Your task to perform on an android device: find which apps use the phone's location Image 0: 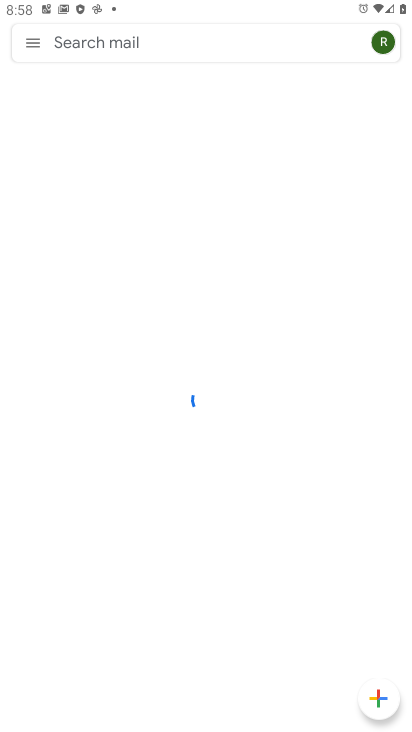
Step 0: press home button
Your task to perform on an android device: find which apps use the phone's location Image 1: 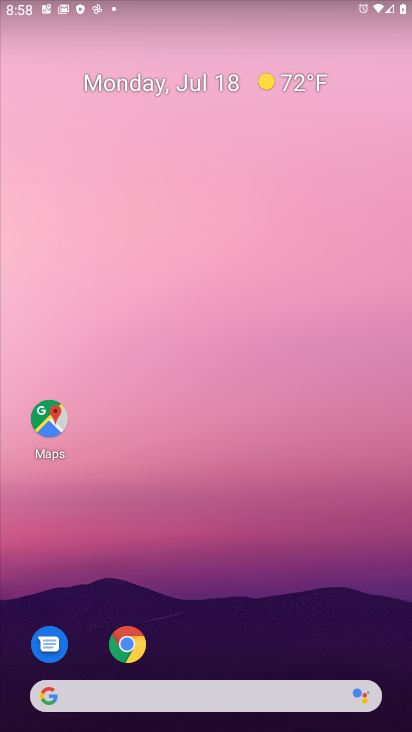
Step 1: drag from (375, 655) to (201, 46)
Your task to perform on an android device: find which apps use the phone's location Image 2: 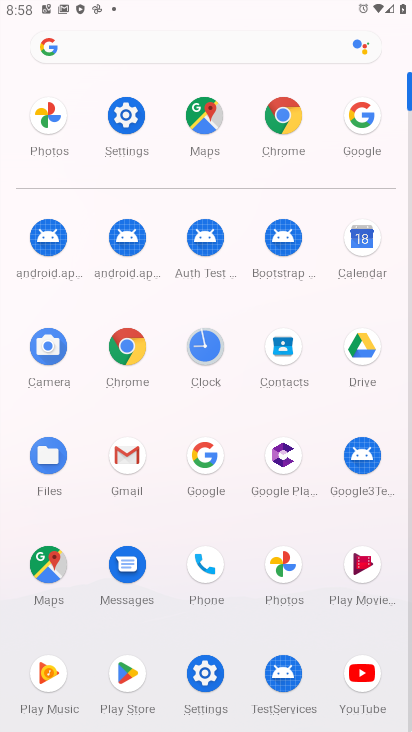
Step 2: click (211, 686)
Your task to perform on an android device: find which apps use the phone's location Image 3: 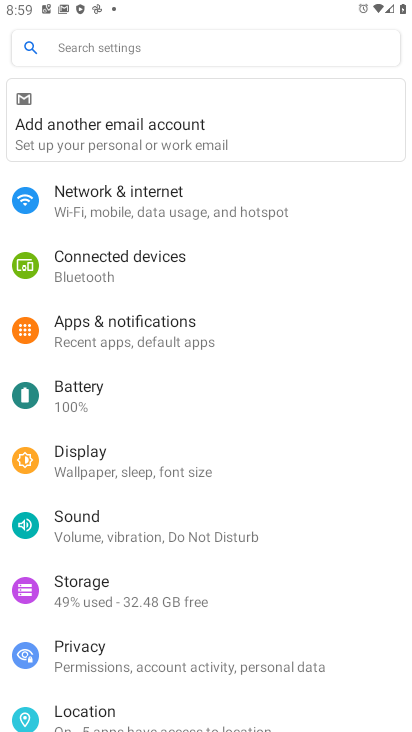
Step 3: click (99, 713)
Your task to perform on an android device: find which apps use the phone's location Image 4: 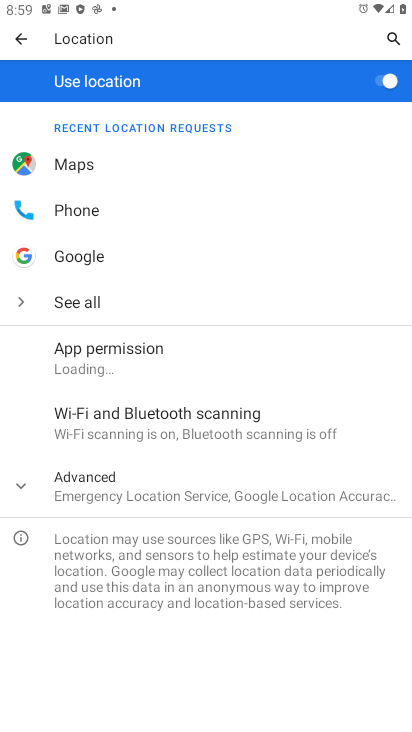
Step 4: click (123, 372)
Your task to perform on an android device: find which apps use the phone's location Image 5: 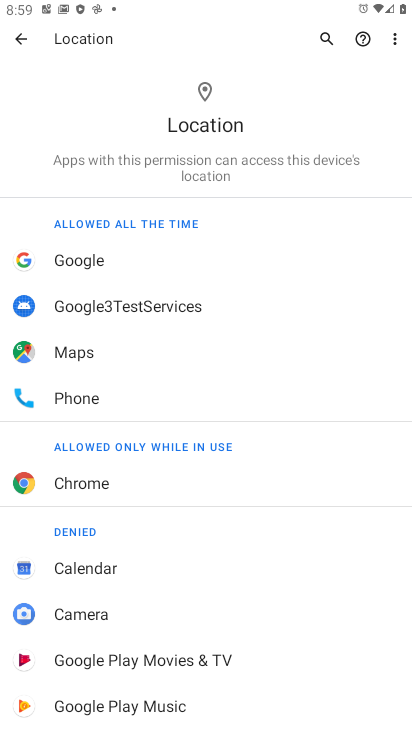
Step 5: click (73, 398)
Your task to perform on an android device: find which apps use the phone's location Image 6: 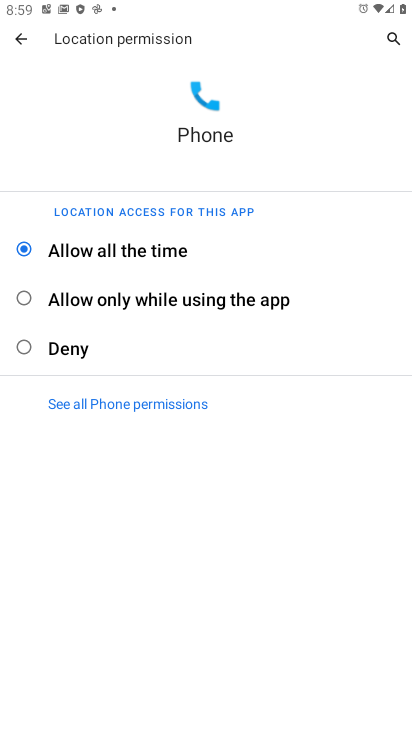
Step 6: task complete